Your task to perform on an android device: toggle improve location accuracy Image 0: 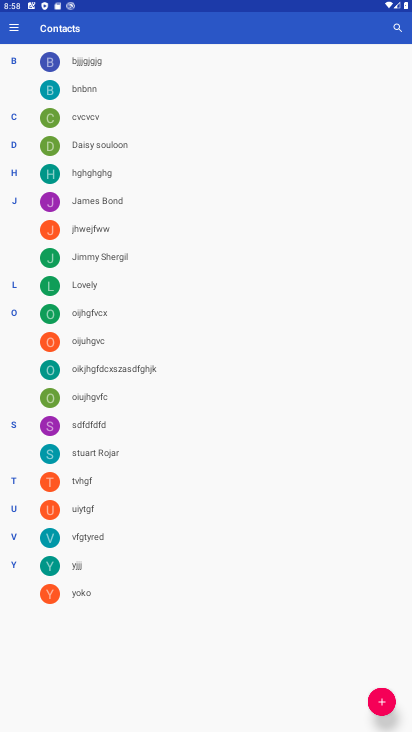
Step 0: press home button
Your task to perform on an android device: toggle improve location accuracy Image 1: 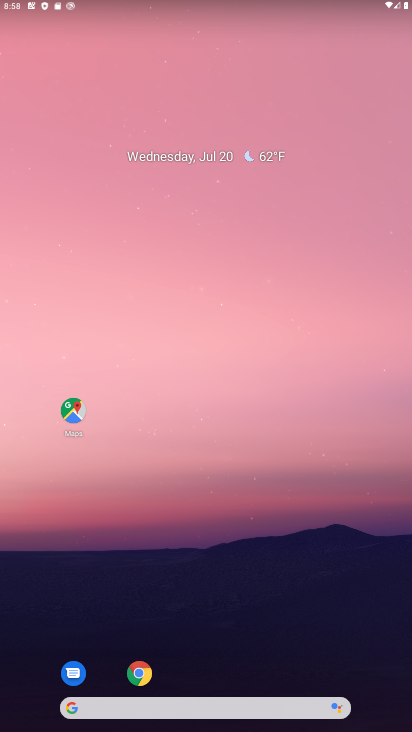
Step 1: drag from (370, 672) to (332, 6)
Your task to perform on an android device: toggle improve location accuracy Image 2: 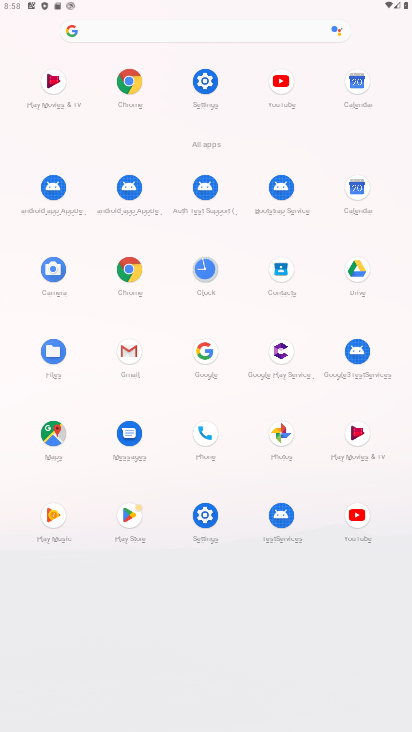
Step 2: click (204, 73)
Your task to perform on an android device: toggle improve location accuracy Image 3: 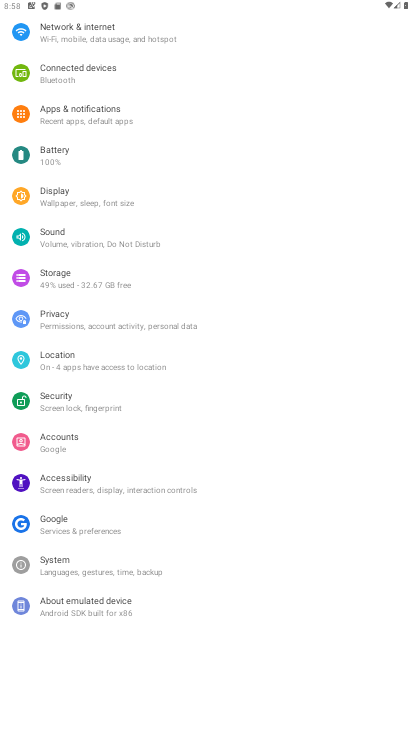
Step 3: click (217, 86)
Your task to perform on an android device: toggle improve location accuracy Image 4: 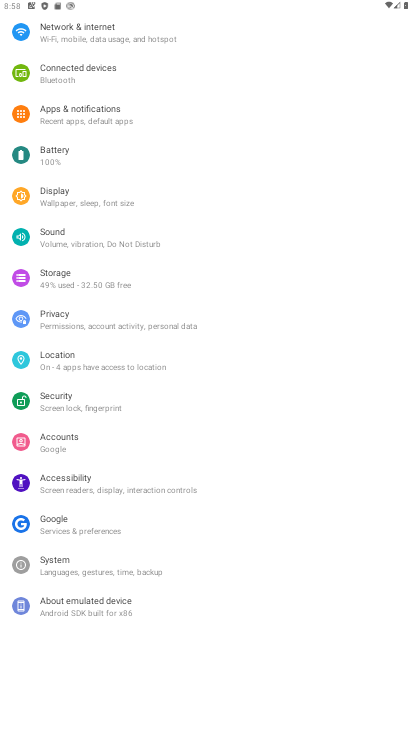
Step 4: click (217, 86)
Your task to perform on an android device: toggle improve location accuracy Image 5: 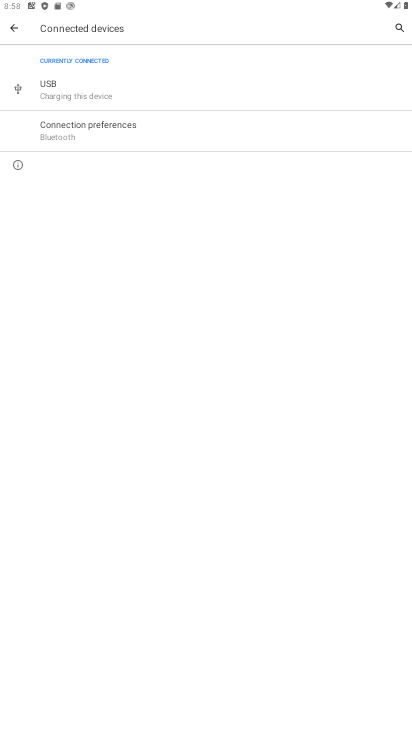
Step 5: click (12, 24)
Your task to perform on an android device: toggle improve location accuracy Image 6: 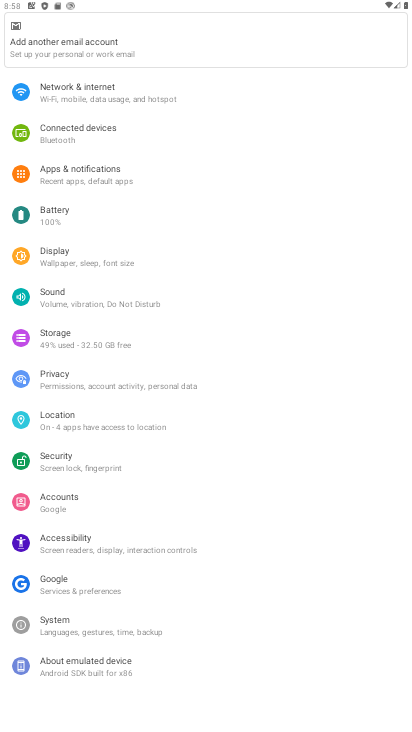
Step 6: click (53, 412)
Your task to perform on an android device: toggle improve location accuracy Image 7: 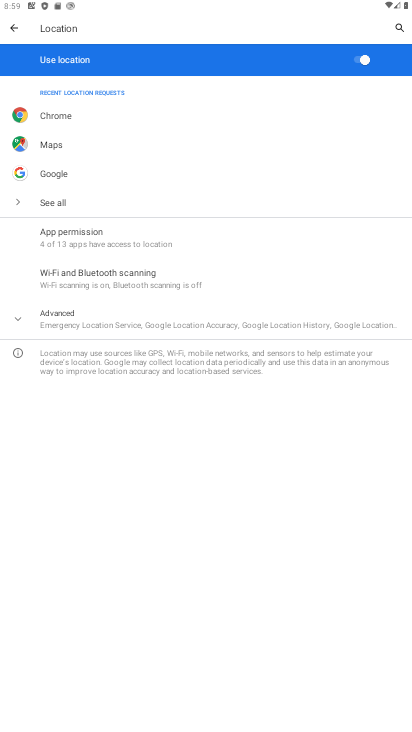
Step 7: click (28, 320)
Your task to perform on an android device: toggle improve location accuracy Image 8: 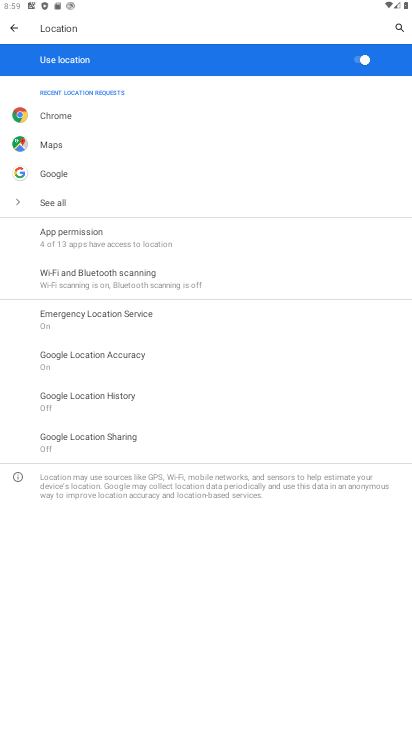
Step 8: click (115, 360)
Your task to perform on an android device: toggle improve location accuracy Image 9: 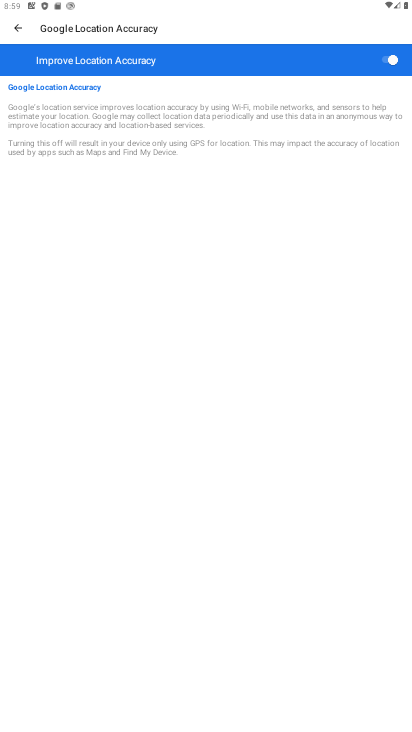
Step 9: click (385, 61)
Your task to perform on an android device: toggle improve location accuracy Image 10: 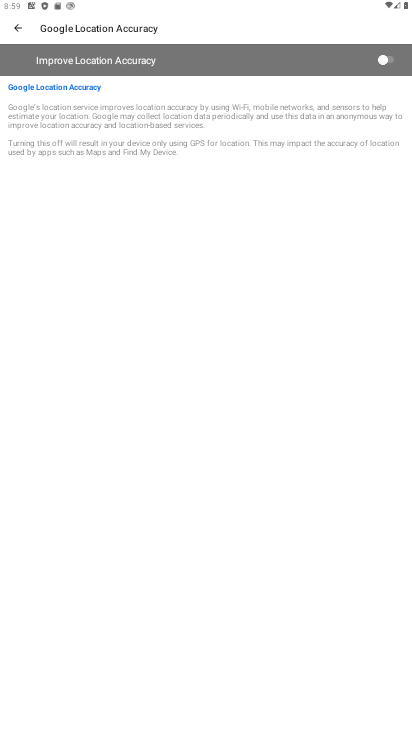
Step 10: task complete